Your task to perform on an android device: open app "Mercado Libre" (install if not already installed), go to login, and select forgot password Image 0: 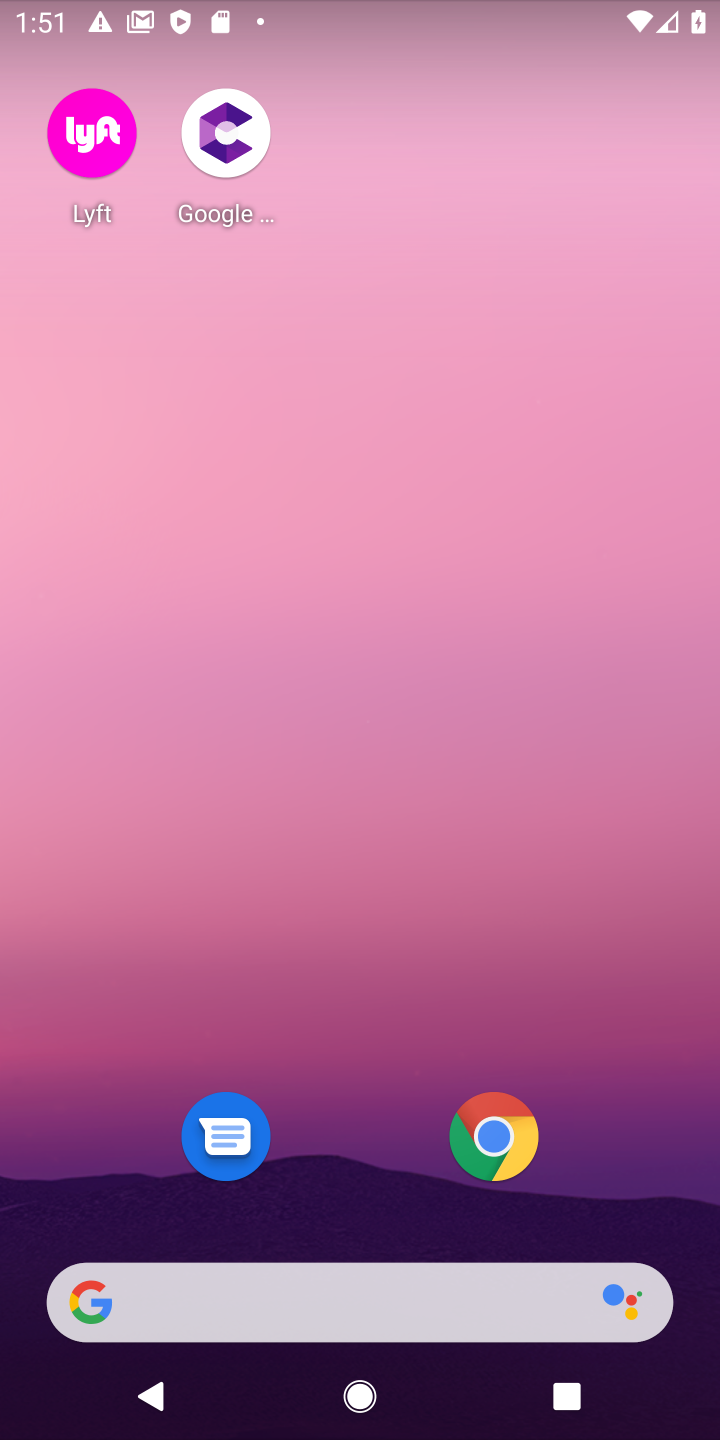
Step 0: drag from (377, 355) to (398, 193)
Your task to perform on an android device: open app "Mercado Libre" (install if not already installed), go to login, and select forgot password Image 1: 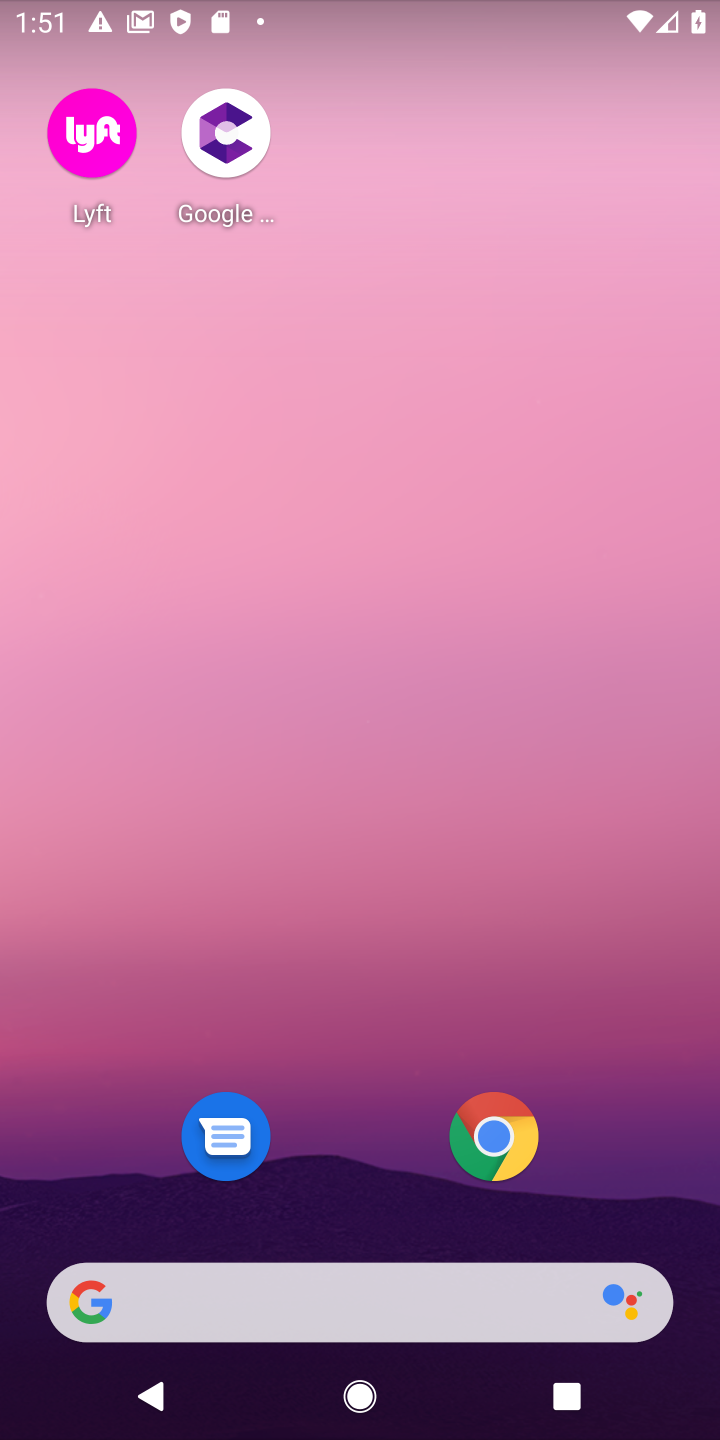
Step 1: drag from (381, 917) to (477, 186)
Your task to perform on an android device: open app "Mercado Libre" (install if not already installed), go to login, and select forgot password Image 2: 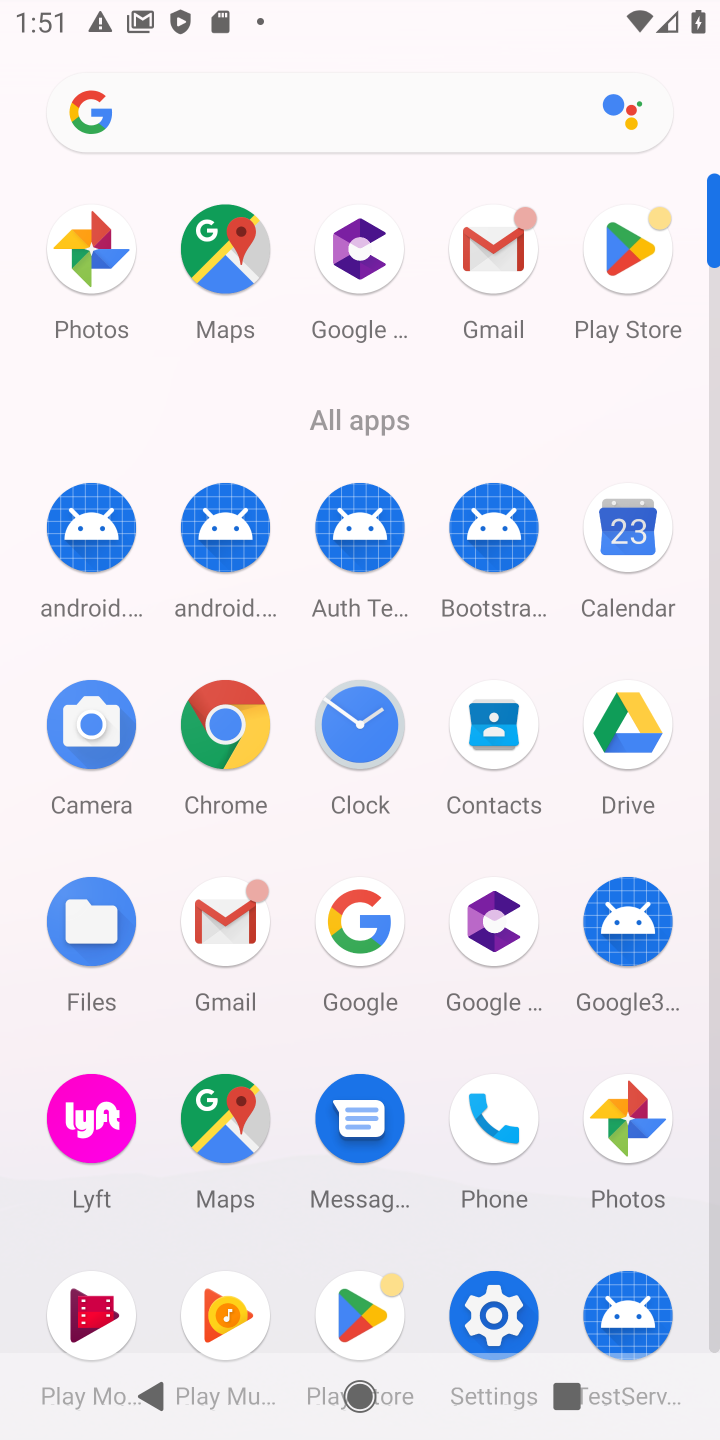
Step 2: click (601, 367)
Your task to perform on an android device: open app "Mercado Libre" (install if not already installed), go to login, and select forgot password Image 3: 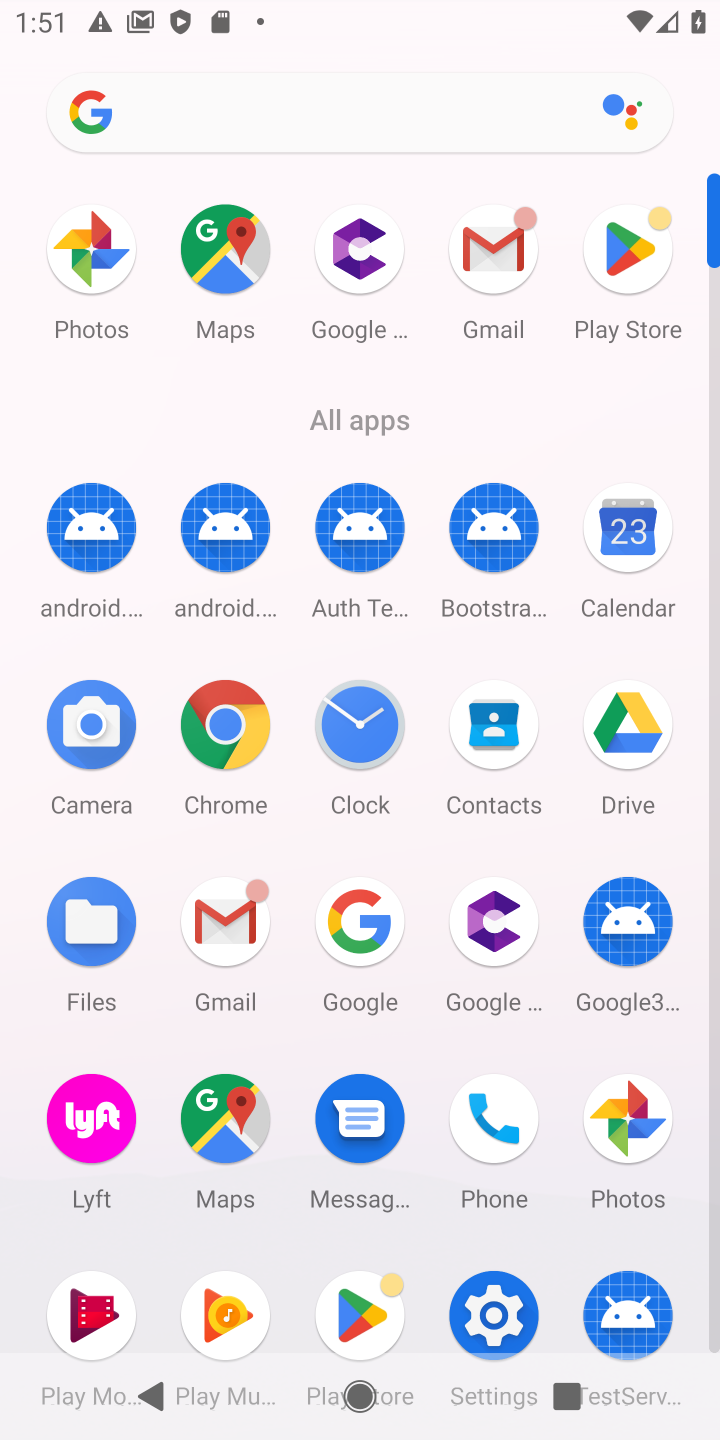
Step 3: click (640, 277)
Your task to perform on an android device: open app "Mercado Libre" (install if not already installed), go to login, and select forgot password Image 4: 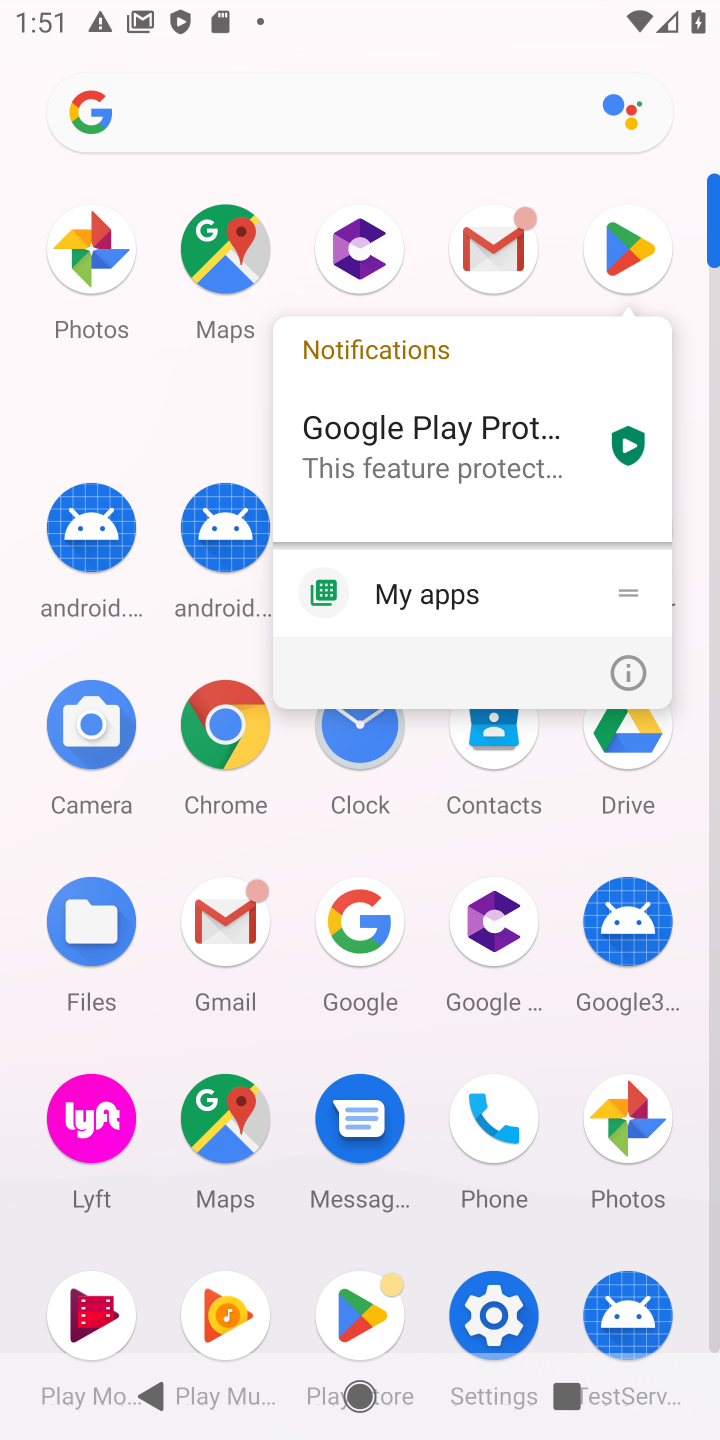
Step 4: click (629, 235)
Your task to perform on an android device: open app "Mercado Libre" (install if not already installed), go to login, and select forgot password Image 5: 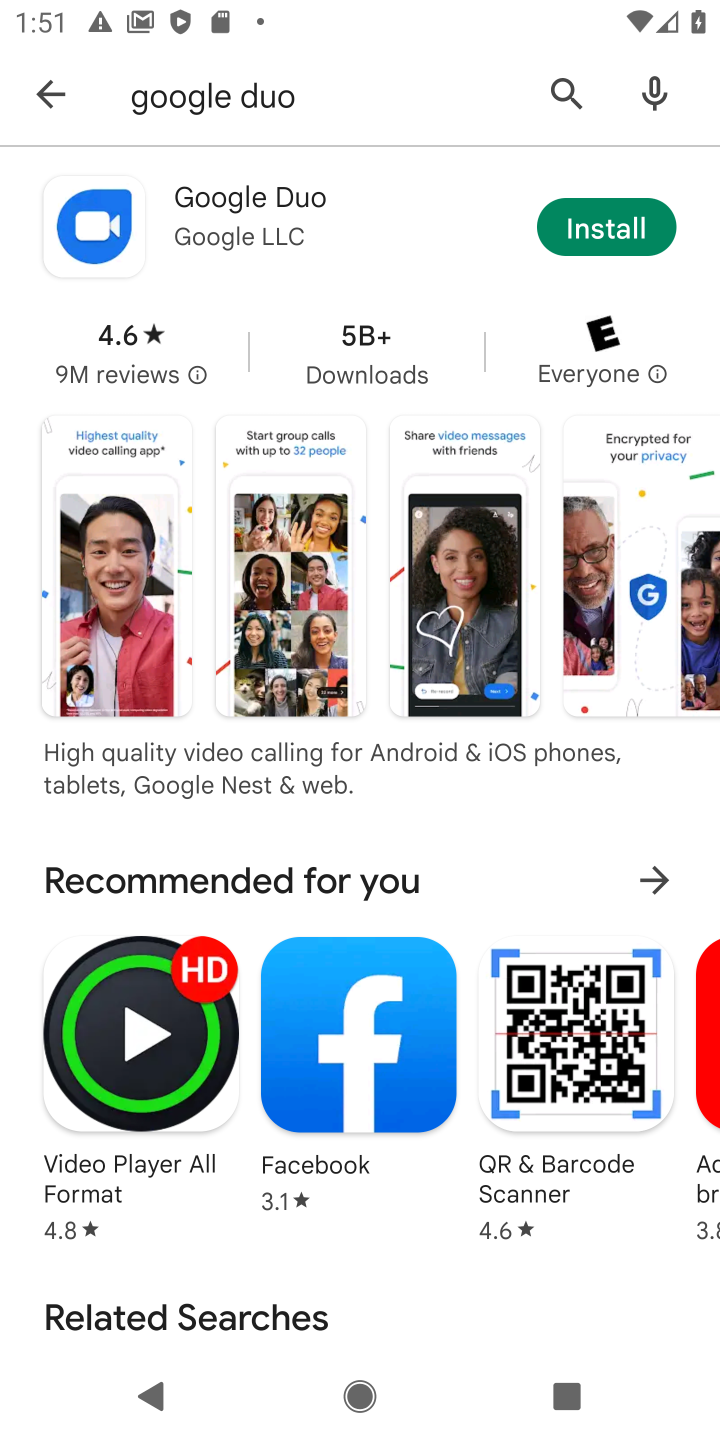
Step 5: click (548, 86)
Your task to perform on an android device: open app "Mercado Libre" (install if not already installed), go to login, and select forgot password Image 6: 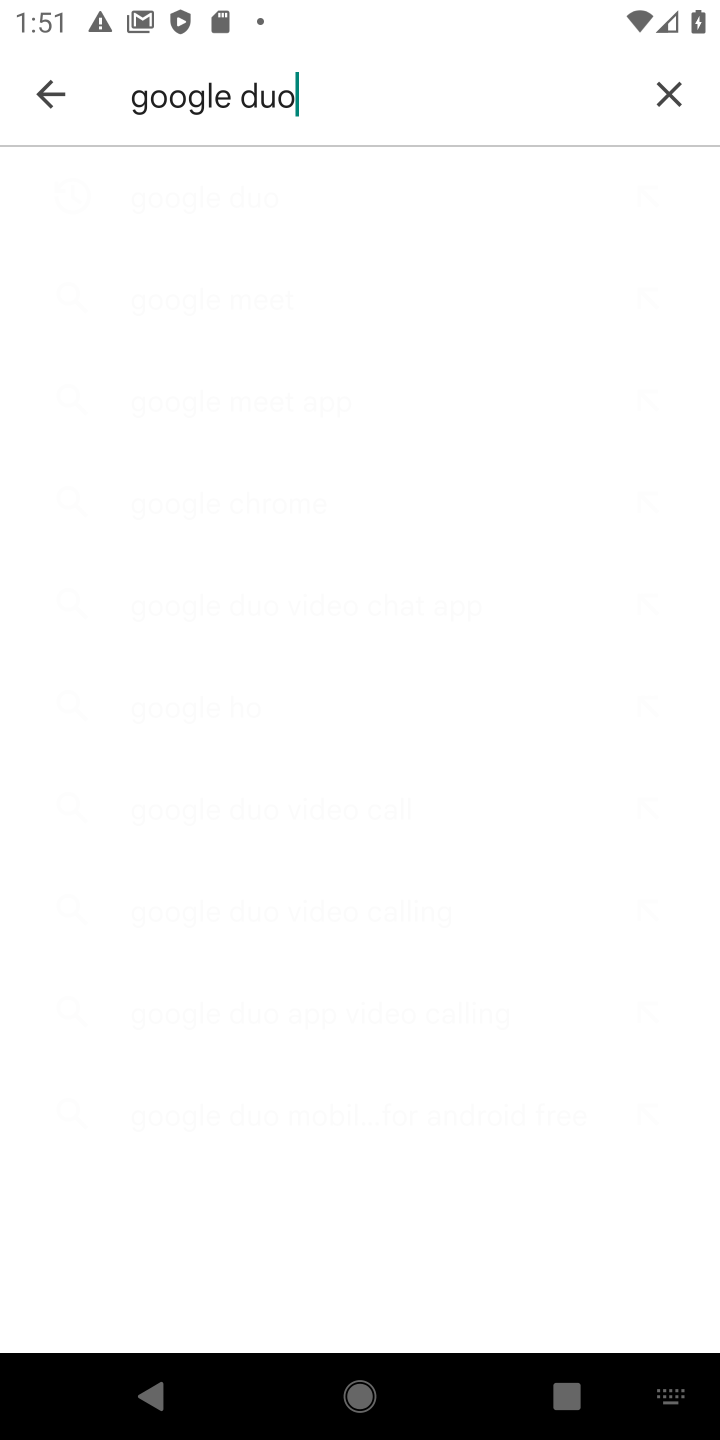
Step 6: click (658, 96)
Your task to perform on an android device: open app "Mercado Libre" (install if not already installed), go to login, and select forgot password Image 7: 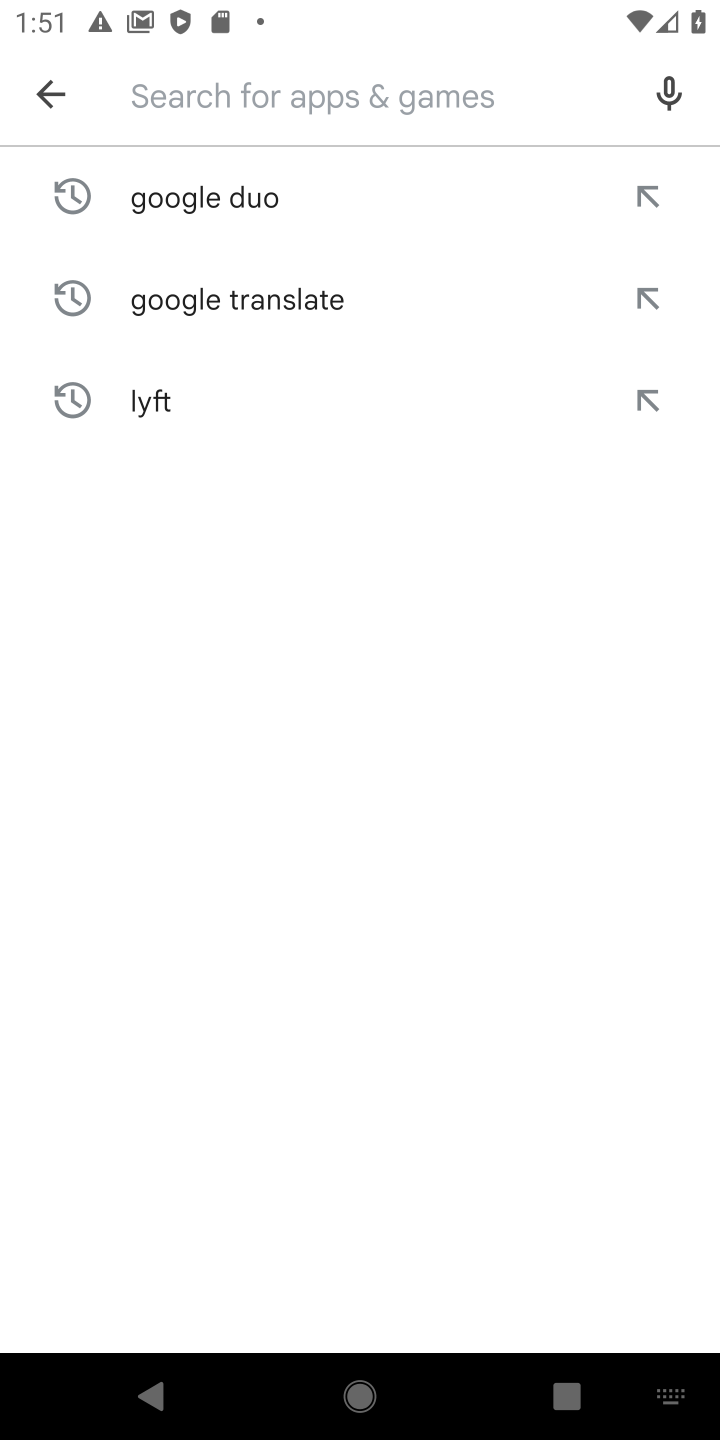
Step 7: type "Mercado Libre"
Your task to perform on an android device: open app "Mercado Libre" (install if not already installed), go to login, and select forgot password Image 8: 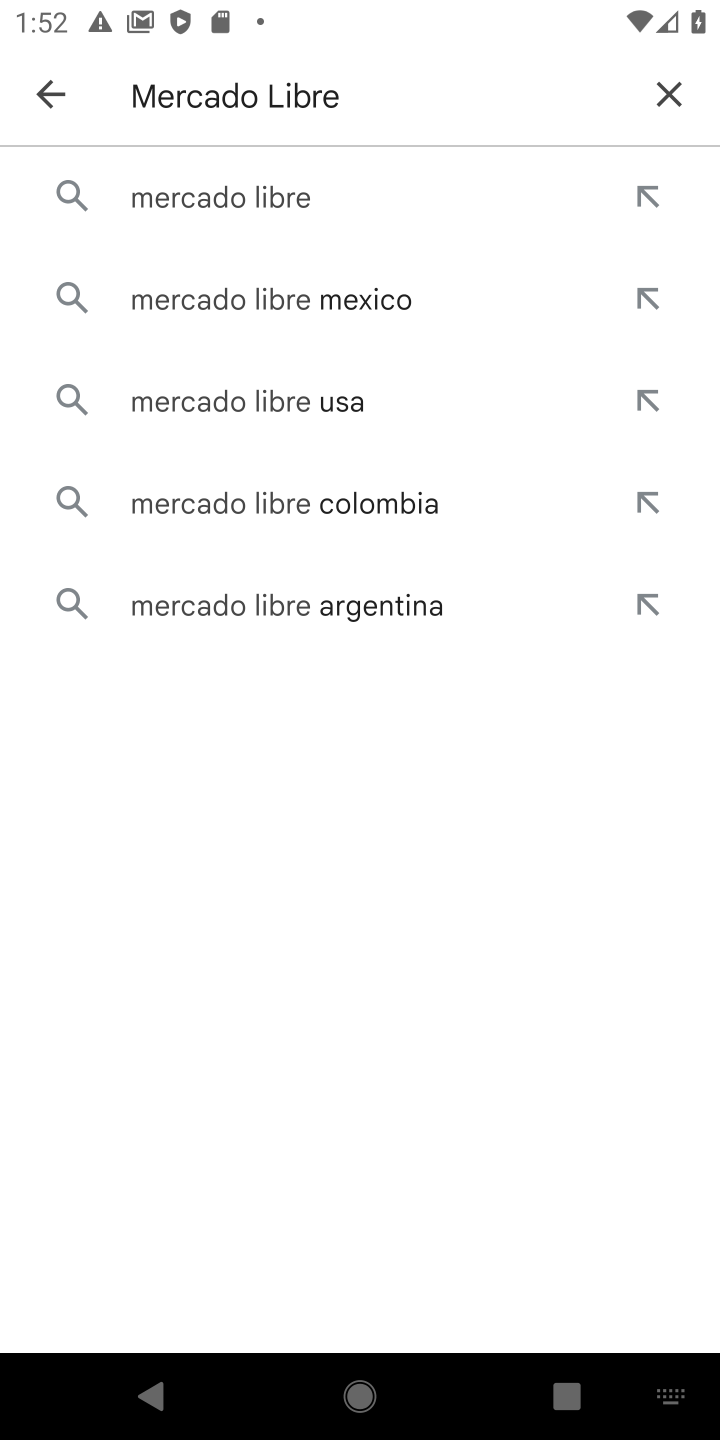
Step 8: click (258, 207)
Your task to perform on an android device: open app "Mercado Libre" (install if not already installed), go to login, and select forgot password Image 9: 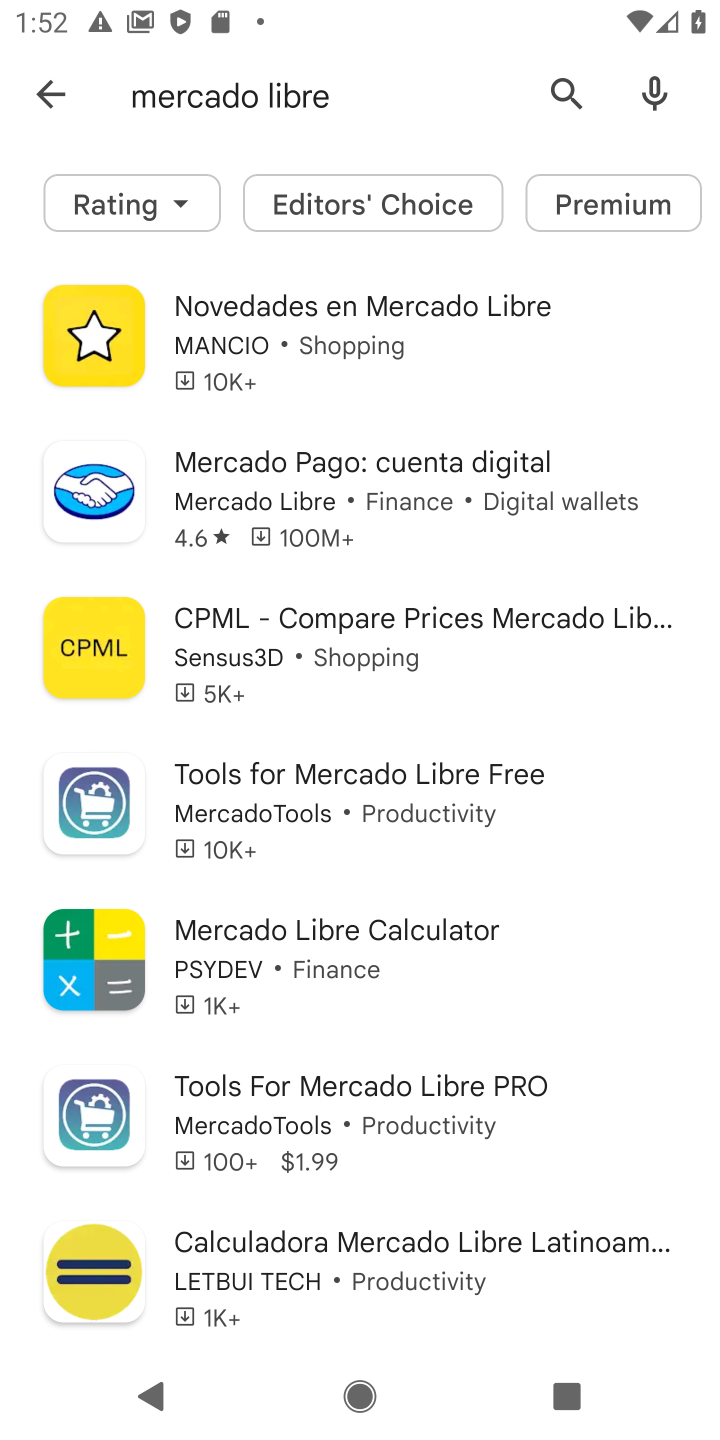
Step 9: click (331, 360)
Your task to perform on an android device: open app "Mercado Libre" (install if not already installed), go to login, and select forgot password Image 10: 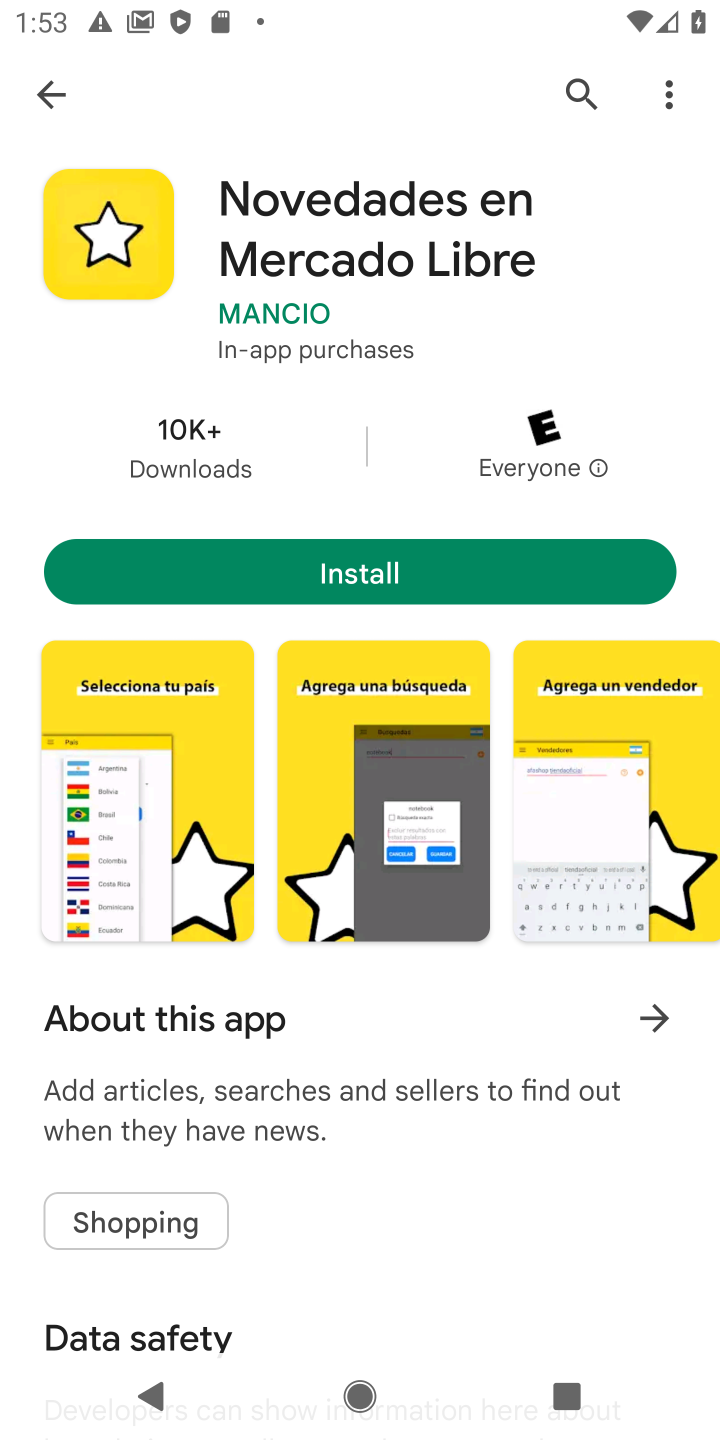
Step 10: click (372, 577)
Your task to perform on an android device: open app "Mercado Libre" (install if not already installed), go to login, and select forgot password Image 11: 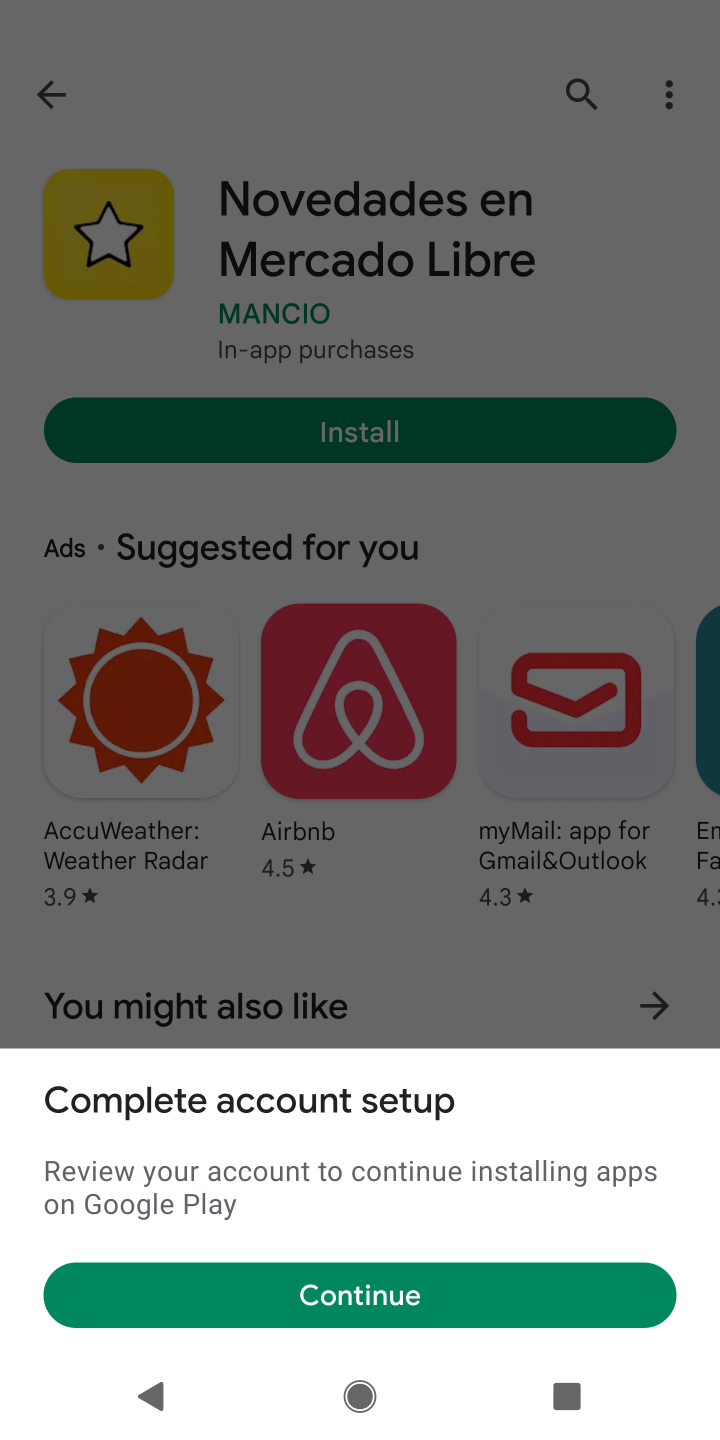
Step 11: click (287, 1302)
Your task to perform on an android device: open app "Mercado Libre" (install if not already installed), go to login, and select forgot password Image 12: 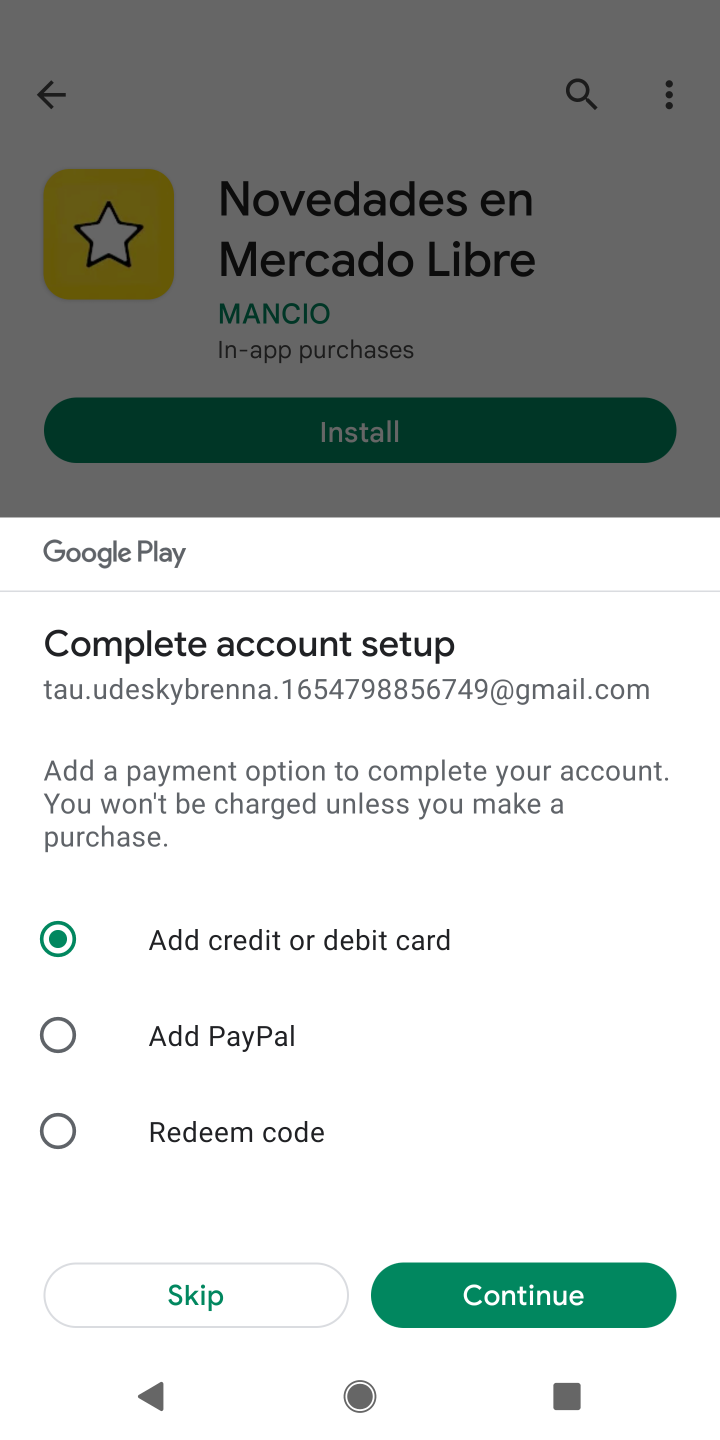
Step 12: click (171, 1270)
Your task to perform on an android device: open app "Mercado Libre" (install if not already installed), go to login, and select forgot password Image 13: 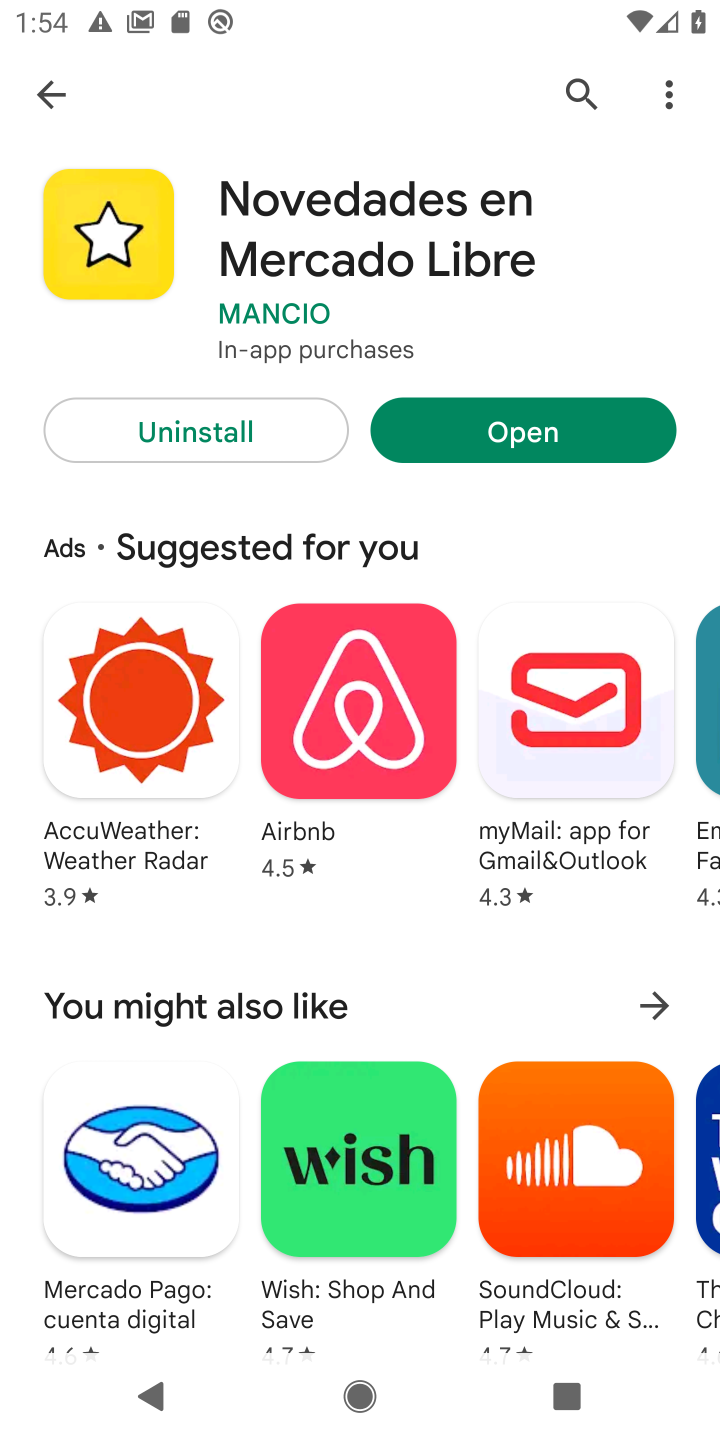
Step 13: click (479, 438)
Your task to perform on an android device: open app "Mercado Libre" (install if not already installed), go to login, and select forgot password Image 14: 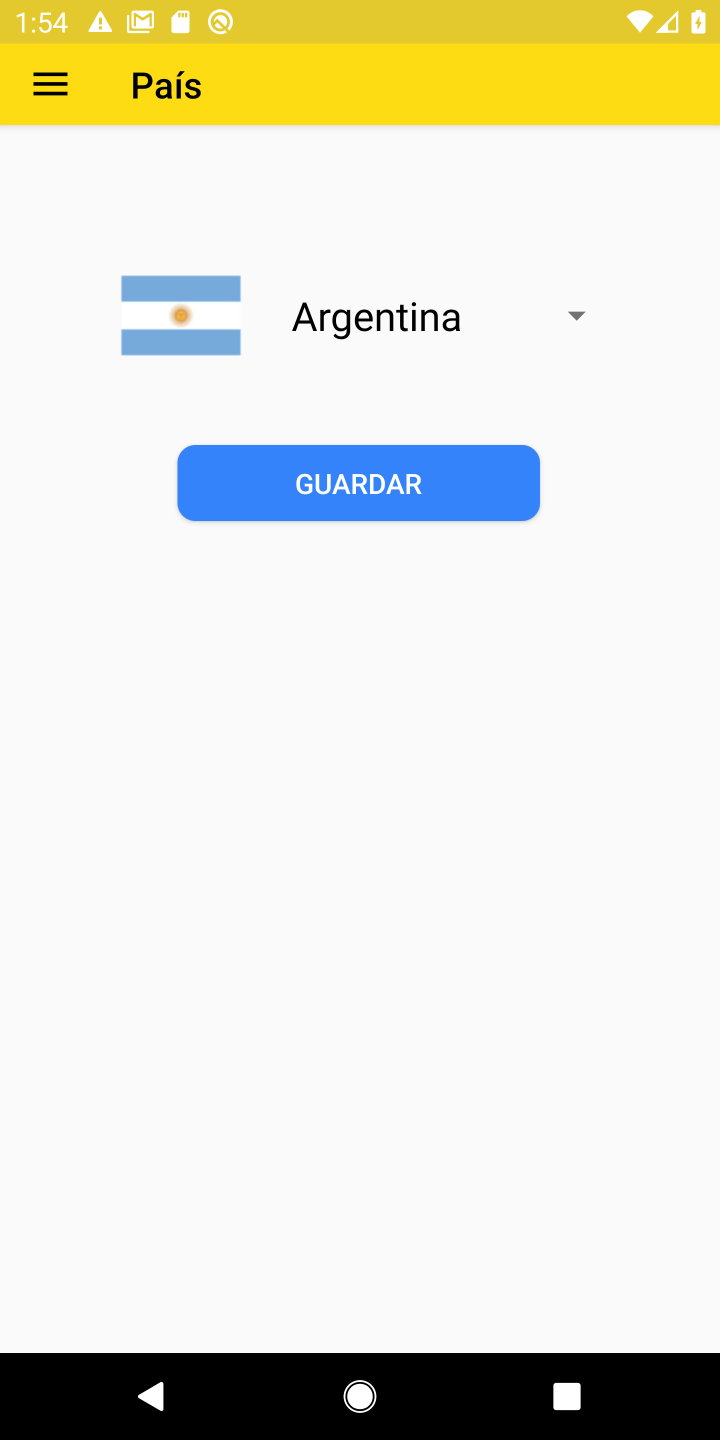
Step 14: task complete